Your task to perform on an android device: turn on improve location accuracy Image 0: 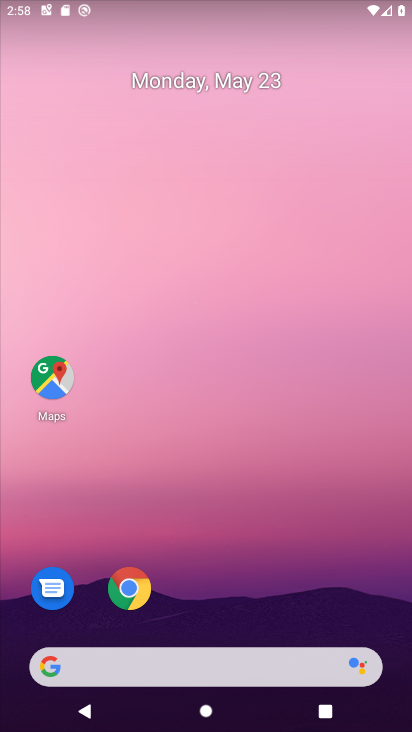
Step 0: drag from (209, 621) to (290, 163)
Your task to perform on an android device: turn on improve location accuracy Image 1: 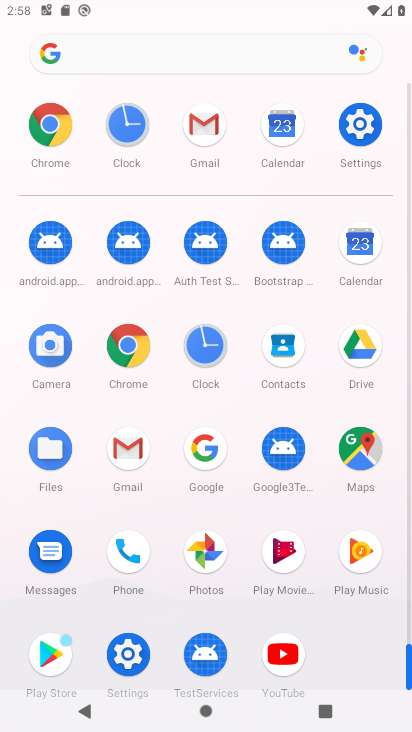
Step 1: click (342, 138)
Your task to perform on an android device: turn on improve location accuracy Image 2: 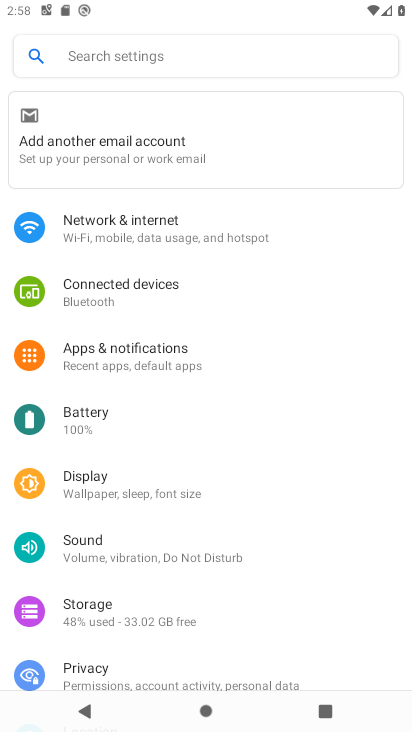
Step 2: drag from (140, 667) to (308, 195)
Your task to perform on an android device: turn on improve location accuracy Image 3: 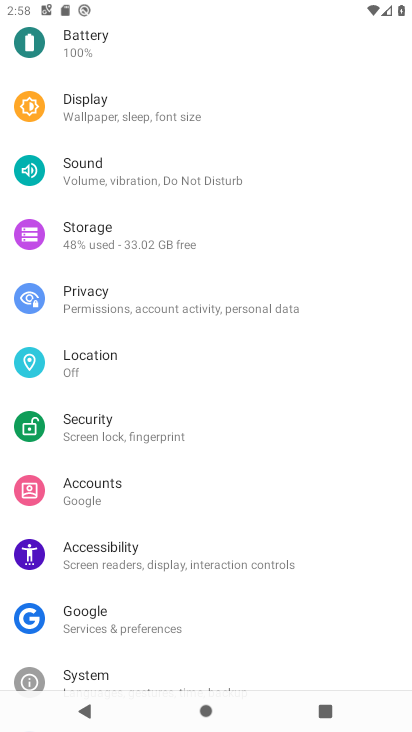
Step 3: click (99, 358)
Your task to perform on an android device: turn on improve location accuracy Image 4: 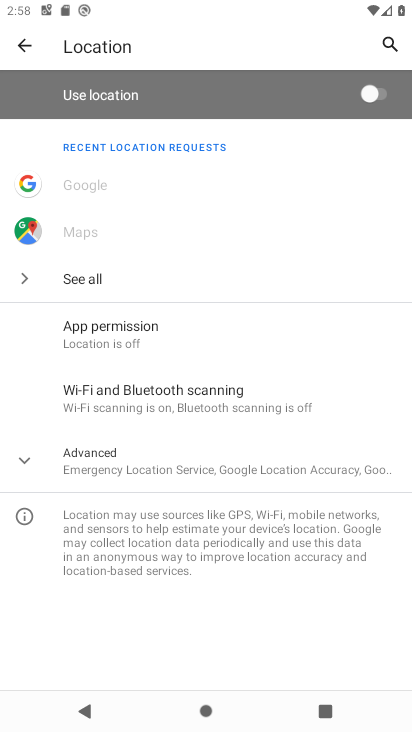
Step 4: click (164, 484)
Your task to perform on an android device: turn on improve location accuracy Image 5: 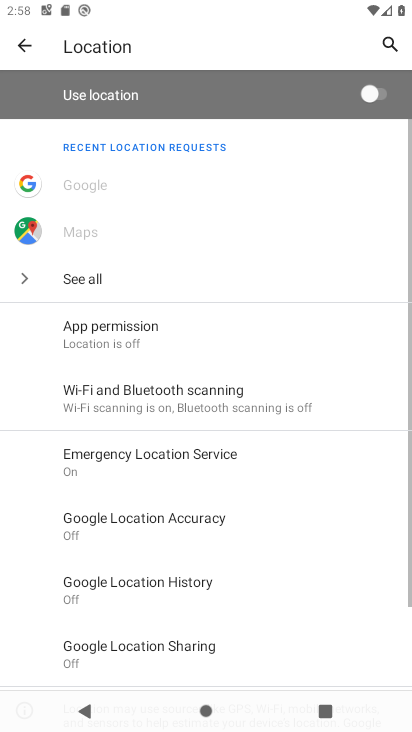
Step 5: drag from (285, 585) to (369, 277)
Your task to perform on an android device: turn on improve location accuracy Image 6: 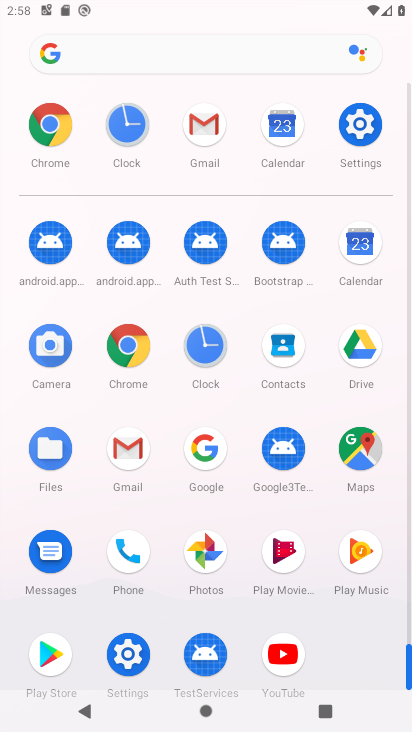
Step 6: click (360, 128)
Your task to perform on an android device: turn on improve location accuracy Image 7: 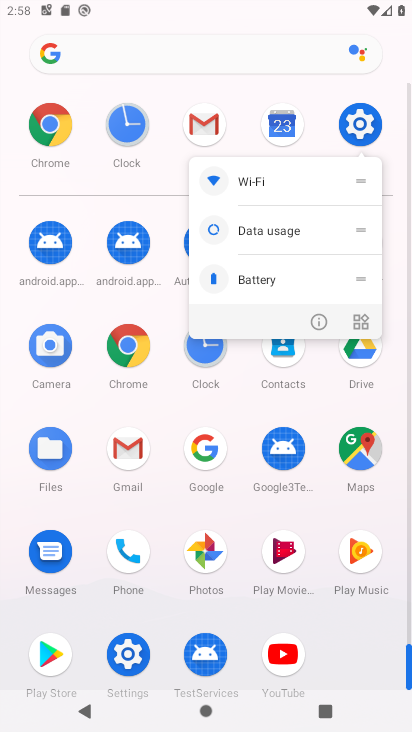
Step 7: click (322, 321)
Your task to perform on an android device: turn on improve location accuracy Image 8: 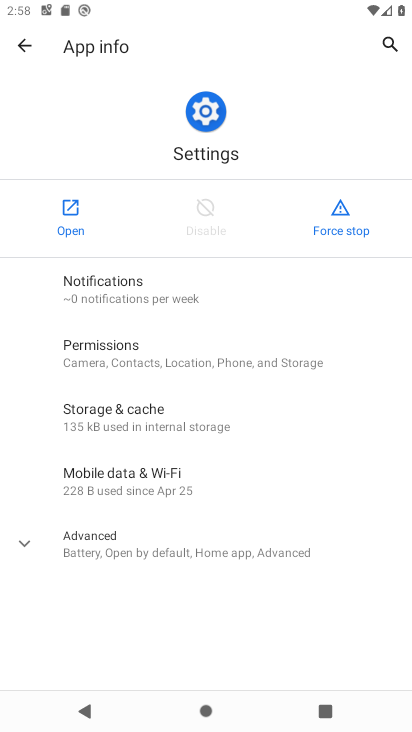
Step 8: click (79, 218)
Your task to perform on an android device: turn on improve location accuracy Image 9: 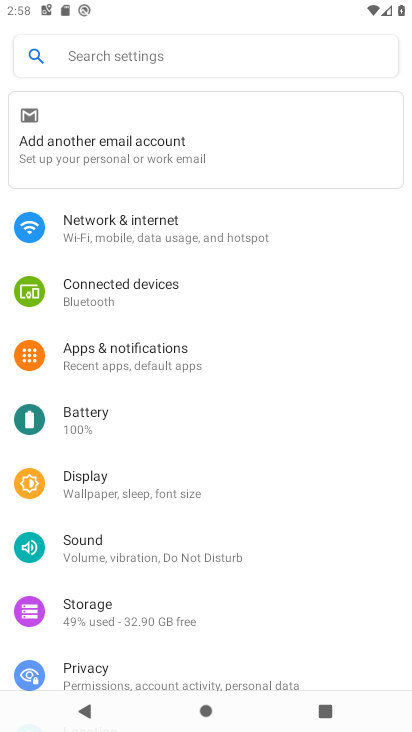
Step 9: drag from (209, 622) to (290, 204)
Your task to perform on an android device: turn on improve location accuracy Image 10: 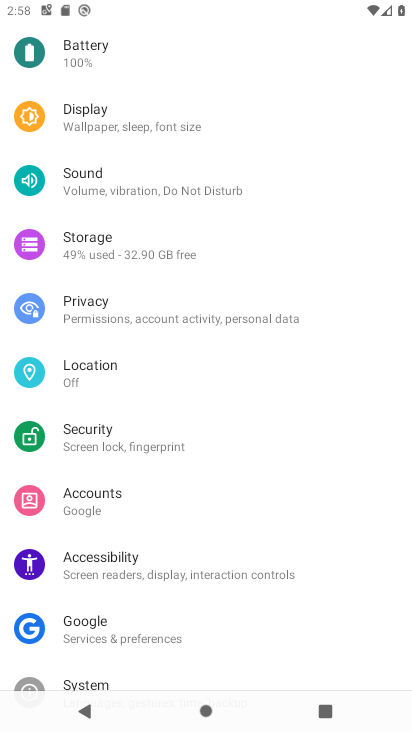
Step 10: drag from (169, 537) to (232, 201)
Your task to perform on an android device: turn on improve location accuracy Image 11: 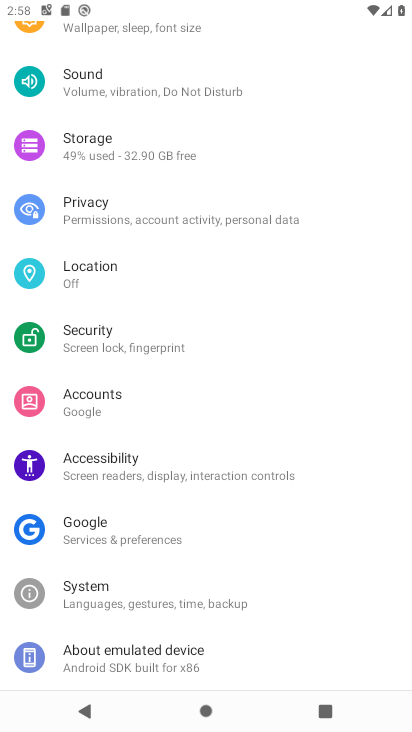
Step 11: drag from (242, 225) to (246, 666)
Your task to perform on an android device: turn on improve location accuracy Image 12: 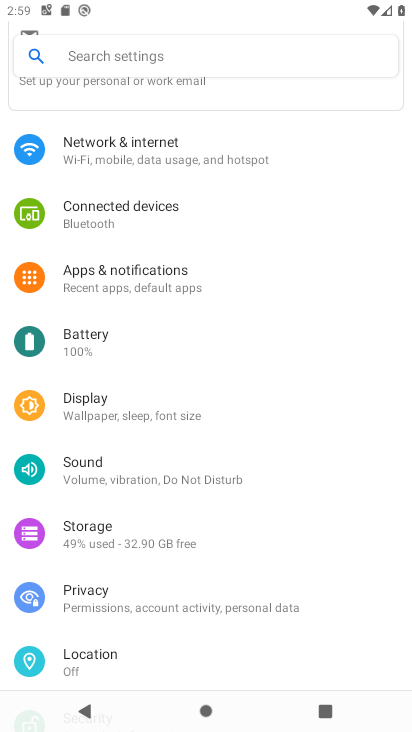
Step 12: drag from (156, 613) to (219, 196)
Your task to perform on an android device: turn on improve location accuracy Image 13: 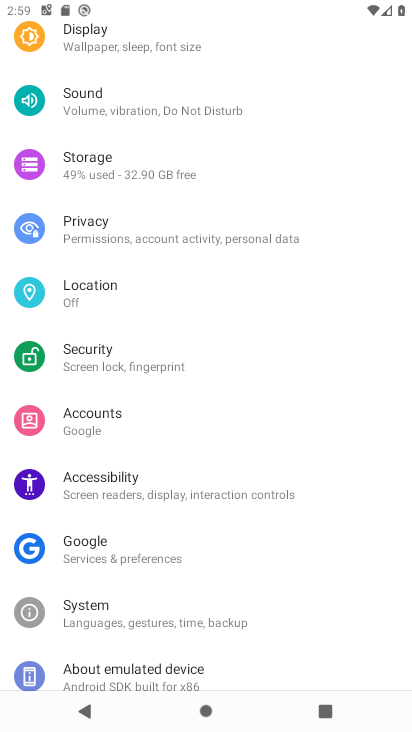
Step 13: click (124, 294)
Your task to perform on an android device: turn on improve location accuracy Image 14: 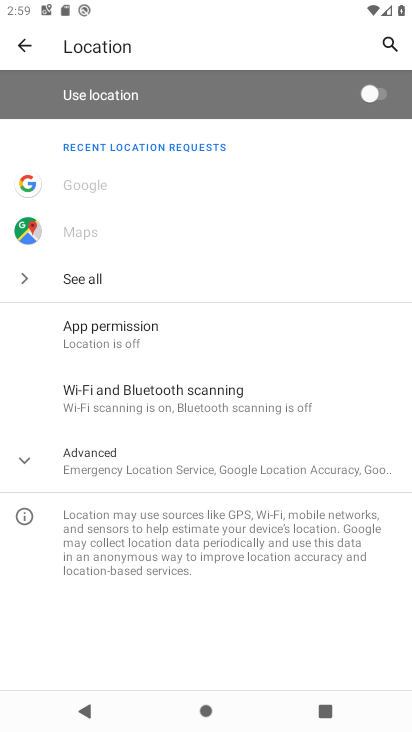
Step 14: click (167, 471)
Your task to perform on an android device: turn on improve location accuracy Image 15: 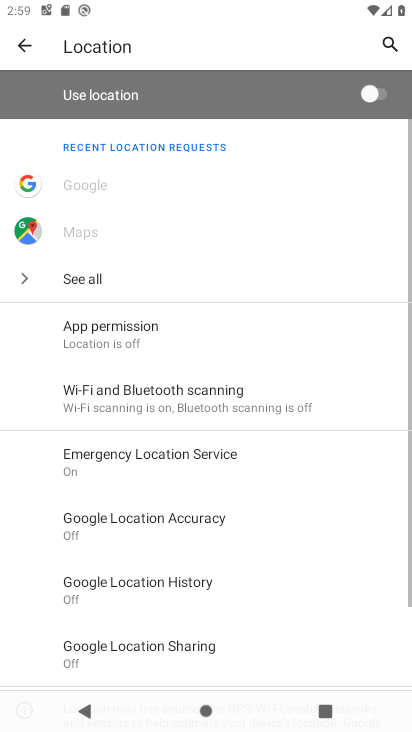
Step 15: drag from (167, 471) to (252, 242)
Your task to perform on an android device: turn on improve location accuracy Image 16: 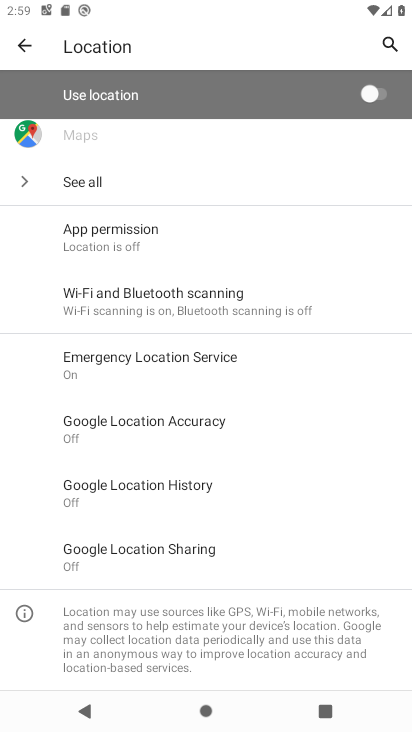
Step 16: click (167, 433)
Your task to perform on an android device: turn on improve location accuracy Image 17: 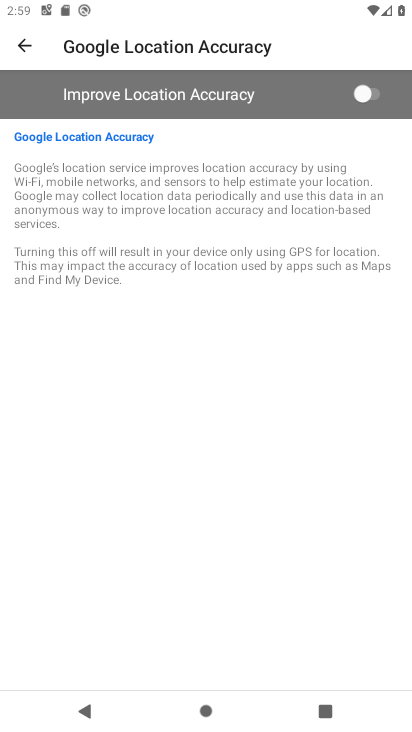
Step 17: click (357, 85)
Your task to perform on an android device: turn on improve location accuracy Image 18: 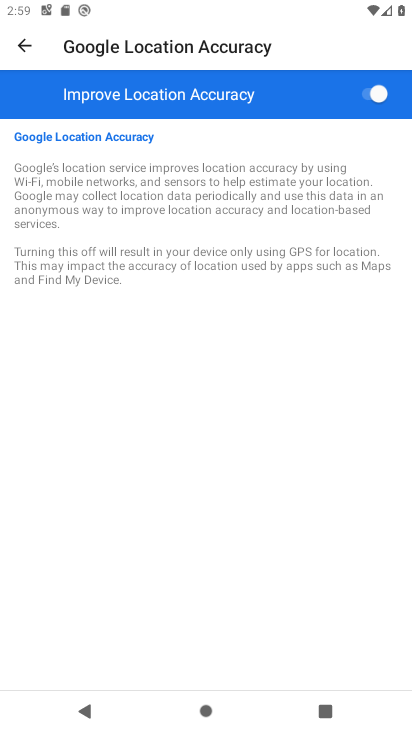
Step 18: task complete